Your task to perform on an android device: Show me popular videos on Youtube Image 0: 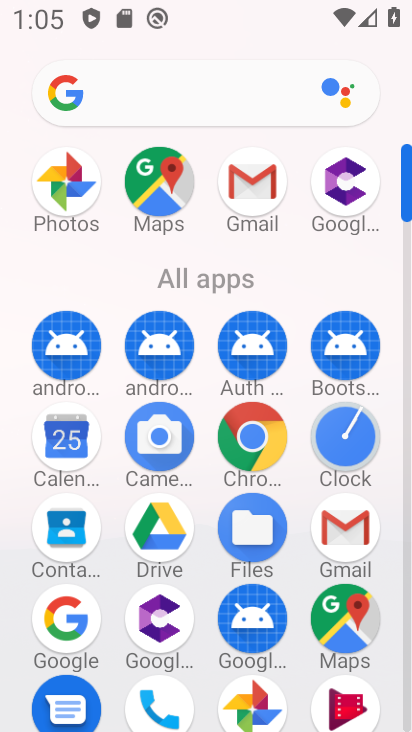
Step 0: drag from (396, 648) to (387, 419)
Your task to perform on an android device: Show me popular videos on Youtube Image 1: 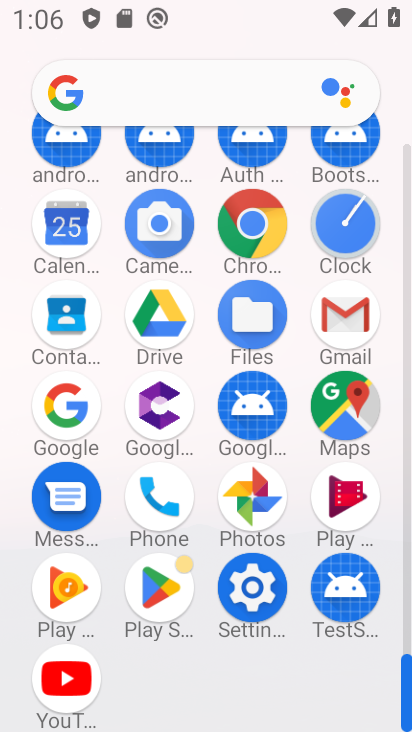
Step 1: click (67, 675)
Your task to perform on an android device: Show me popular videos on Youtube Image 2: 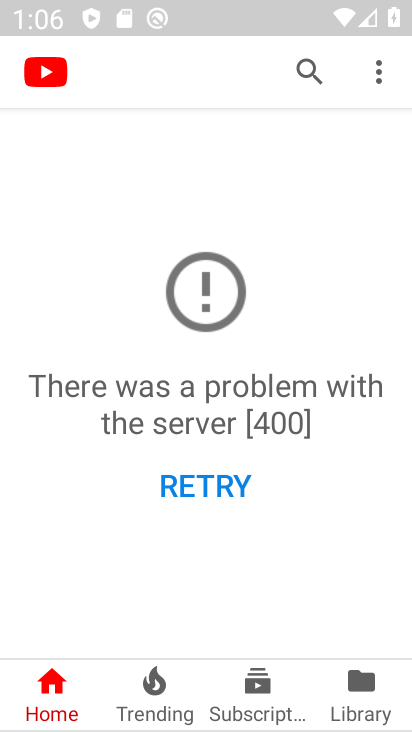
Step 2: task complete